Your task to perform on an android device: Open Google Image 0: 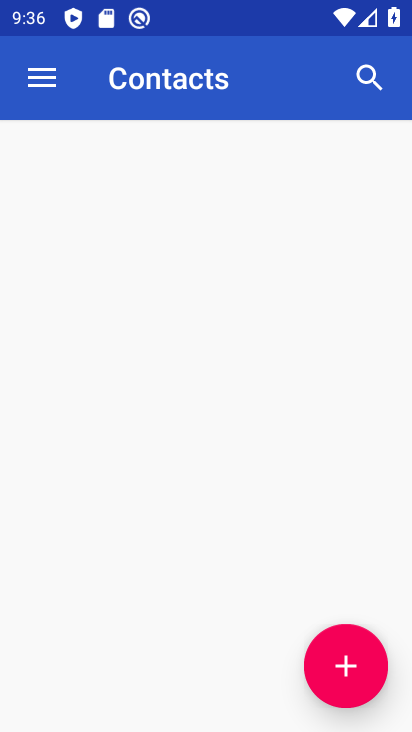
Step 0: press home button
Your task to perform on an android device: Open Google Image 1: 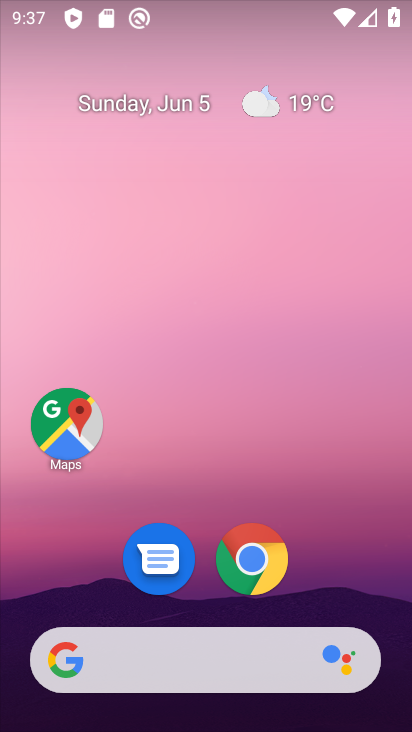
Step 1: drag from (196, 606) to (314, 97)
Your task to perform on an android device: Open Google Image 2: 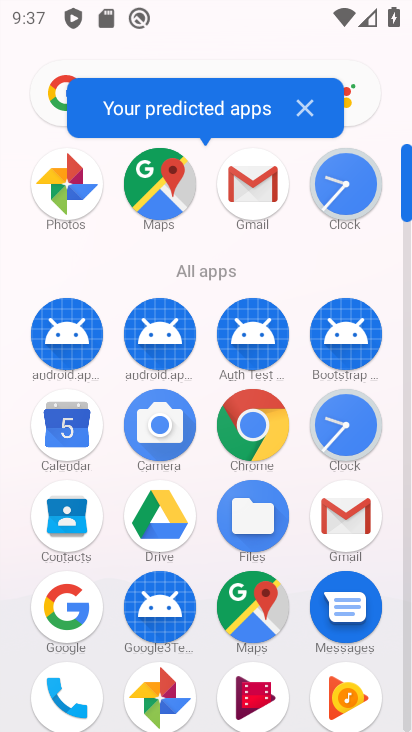
Step 2: click (62, 594)
Your task to perform on an android device: Open Google Image 3: 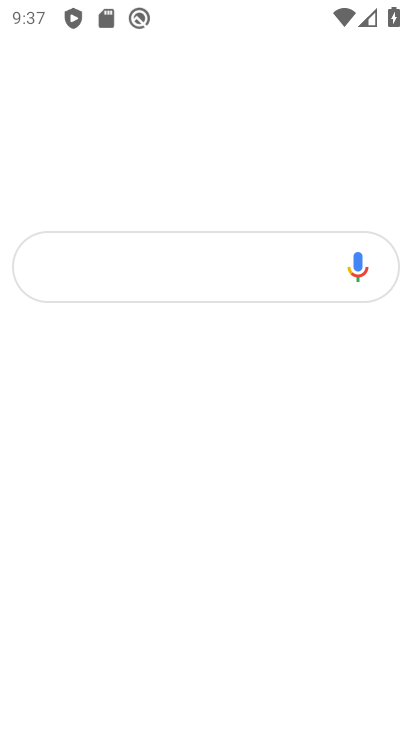
Step 3: click (68, 594)
Your task to perform on an android device: Open Google Image 4: 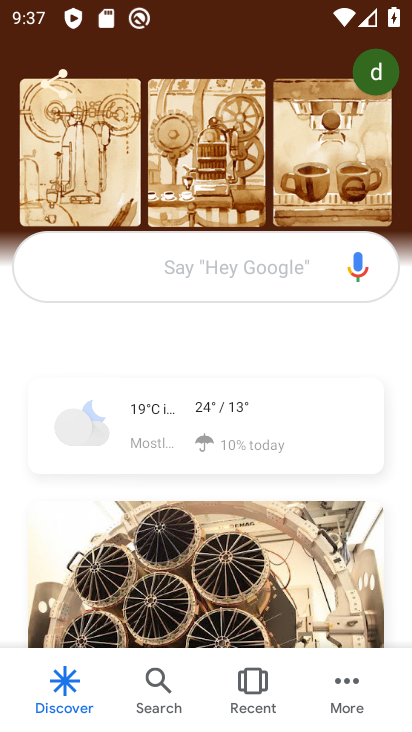
Step 4: task complete